Your task to perform on an android device: Open eBay Image 0: 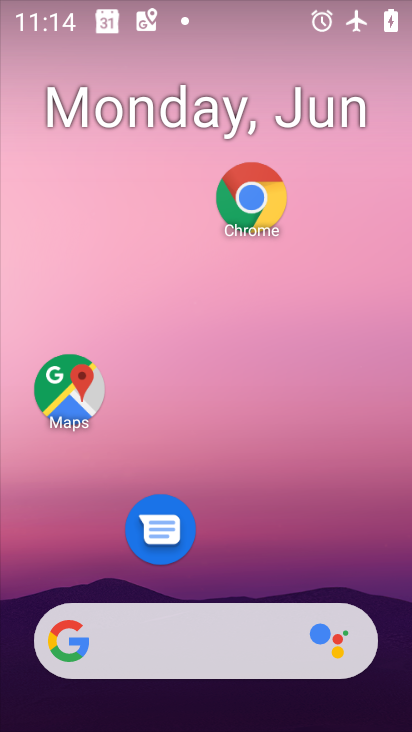
Step 0: click (235, 209)
Your task to perform on an android device: Open eBay Image 1: 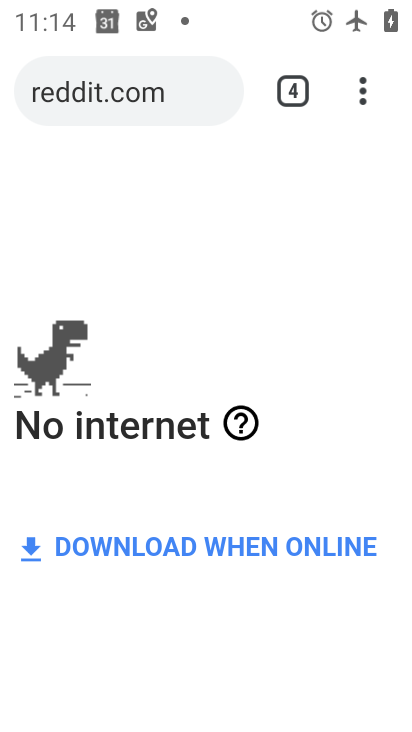
Step 1: click (303, 94)
Your task to perform on an android device: Open eBay Image 2: 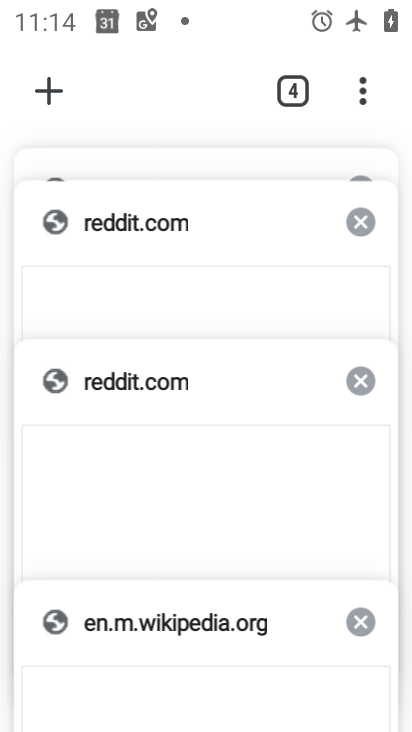
Step 2: drag from (132, 318) to (154, 572)
Your task to perform on an android device: Open eBay Image 3: 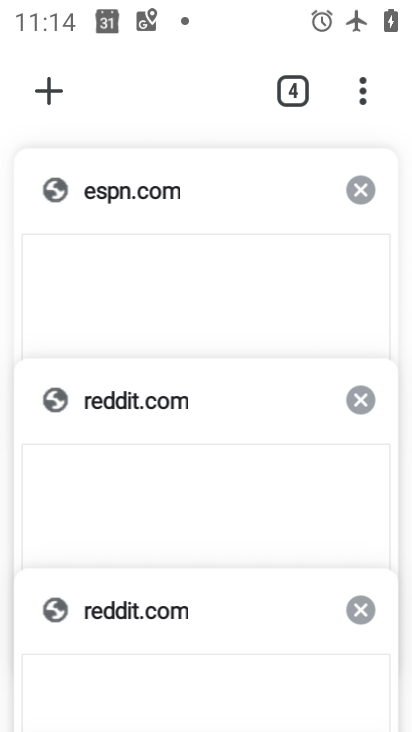
Step 3: drag from (165, 254) to (177, 404)
Your task to perform on an android device: Open eBay Image 4: 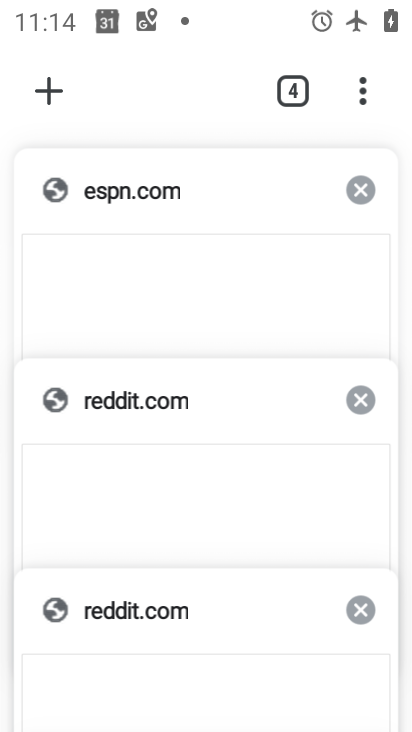
Step 4: click (51, 95)
Your task to perform on an android device: Open eBay Image 5: 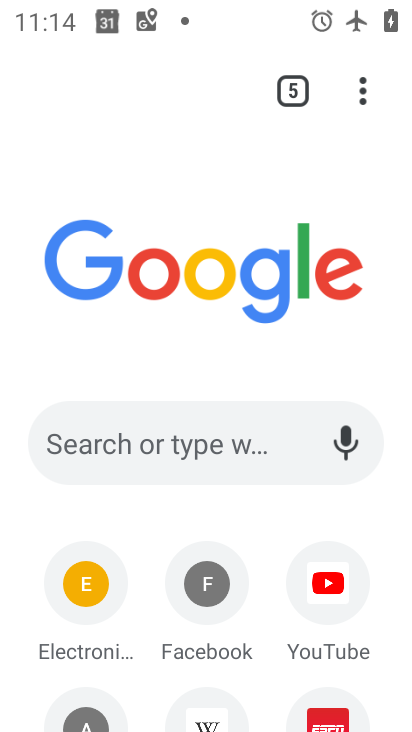
Step 5: click (166, 434)
Your task to perform on an android device: Open eBay Image 6: 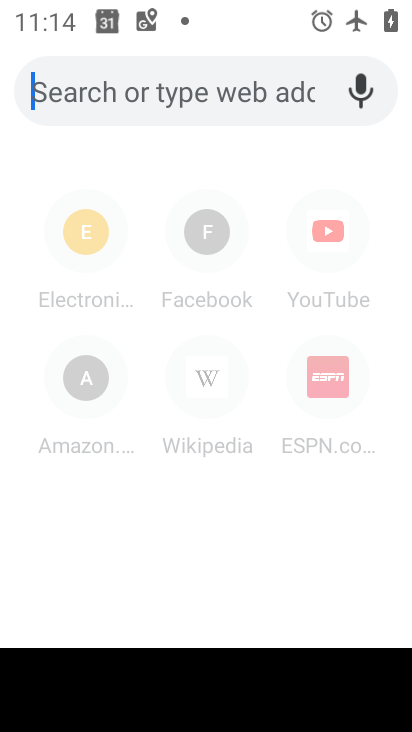
Step 6: type "eBay"
Your task to perform on an android device: Open eBay Image 7: 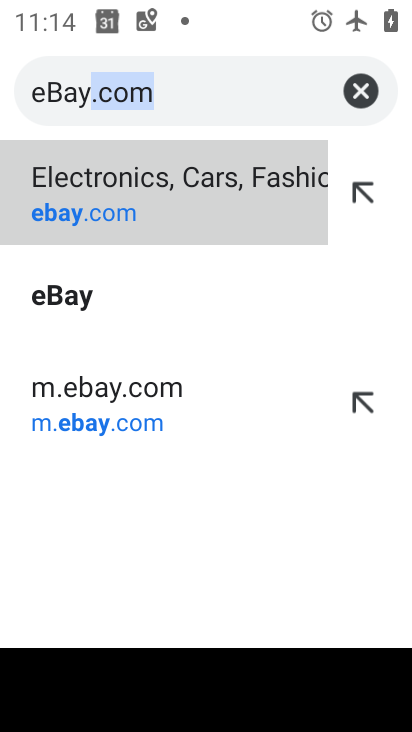
Step 7: click (136, 193)
Your task to perform on an android device: Open eBay Image 8: 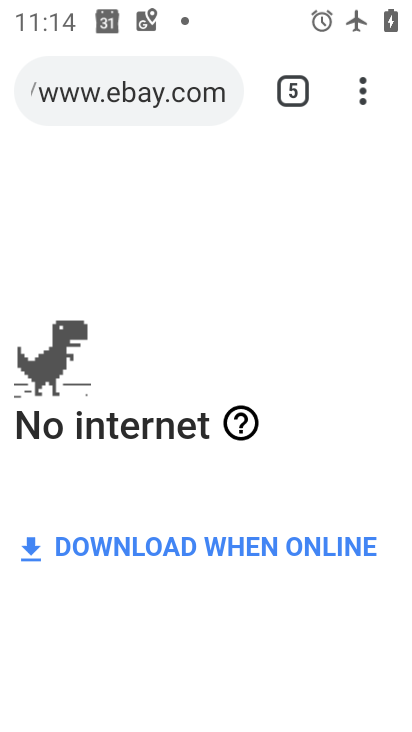
Step 8: task complete